Your task to perform on an android device: Open wifi settings Image 0: 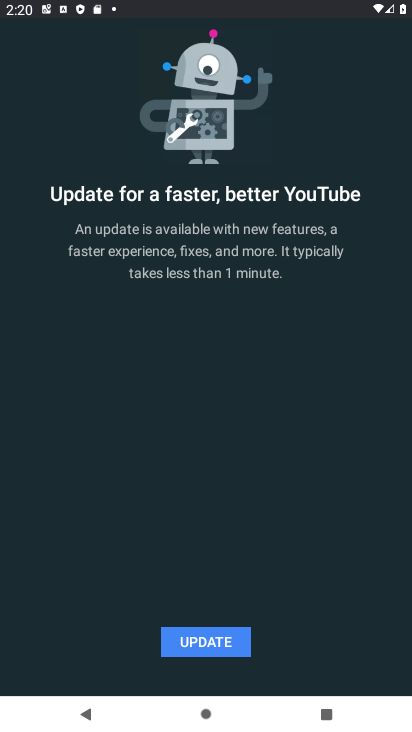
Step 0: press home button
Your task to perform on an android device: Open wifi settings Image 1: 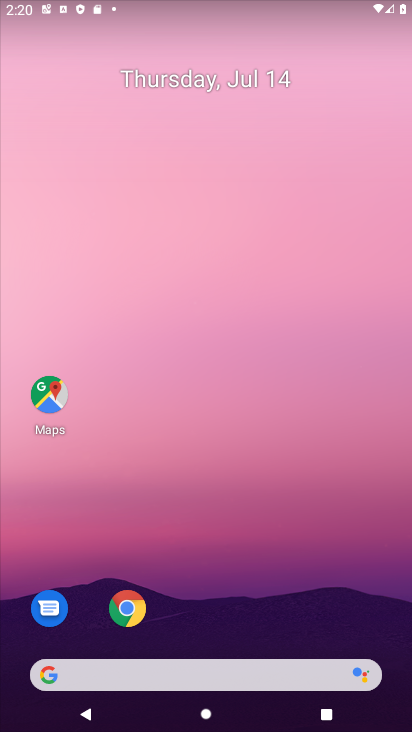
Step 1: drag from (340, 615) to (324, 86)
Your task to perform on an android device: Open wifi settings Image 2: 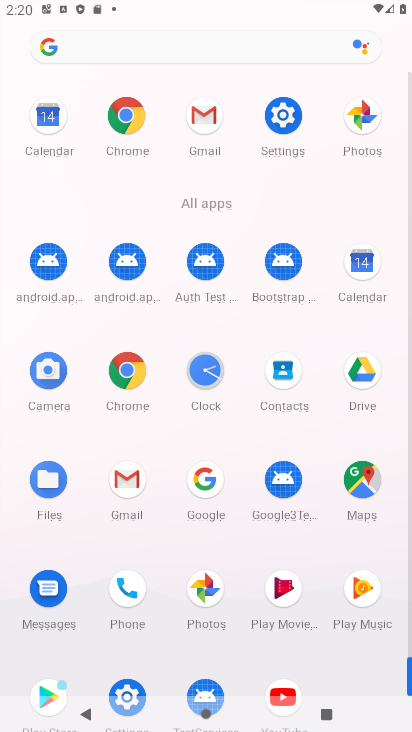
Step 2: click (410, 644)
Your task to perform on an android device: Open wifi settings Image 3: 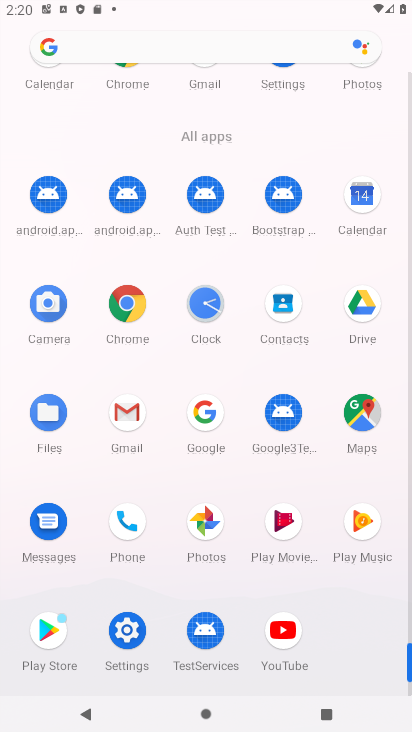
Step 3: click (128, 631)
Your task to perform on an android device: Open wifi settings Image 4: 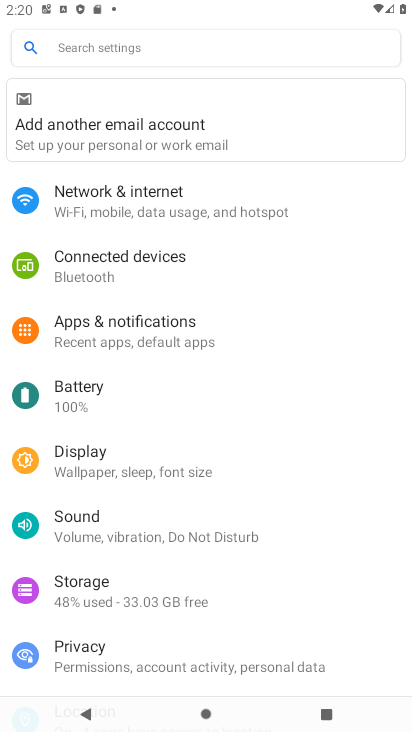
Step 4: click (103, 211)
Your task to perform on an android device: Open wifi settings Image 5: 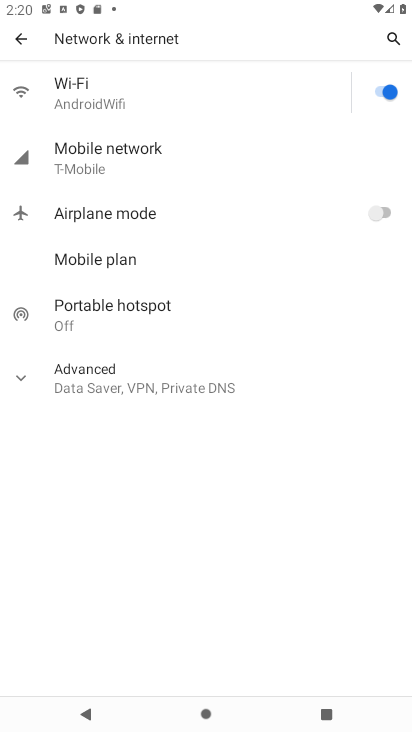
Step 5: click (73, 81)
Your task to perform on an android device: Open wifi settings Image 6: 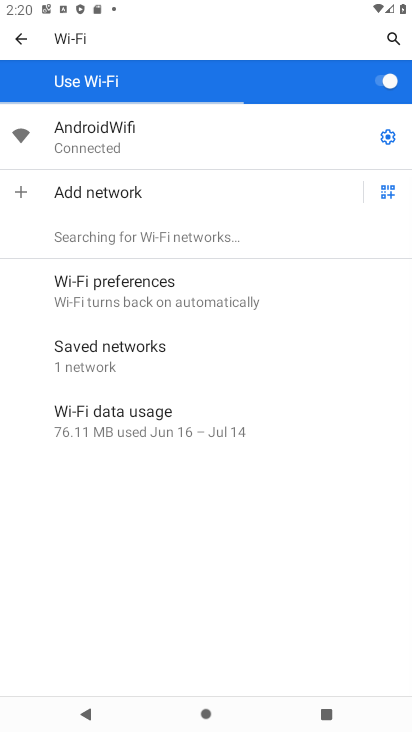
Step 6: click (385, 138)
Your task to perform on an android device: Open wifi settings Image 7: 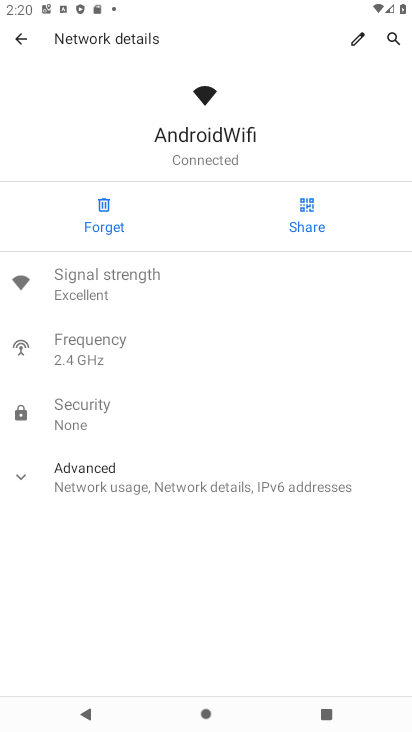
Step 7: task complete